Your task to perform on an android device: toggle translation in the chrome app Image 0: 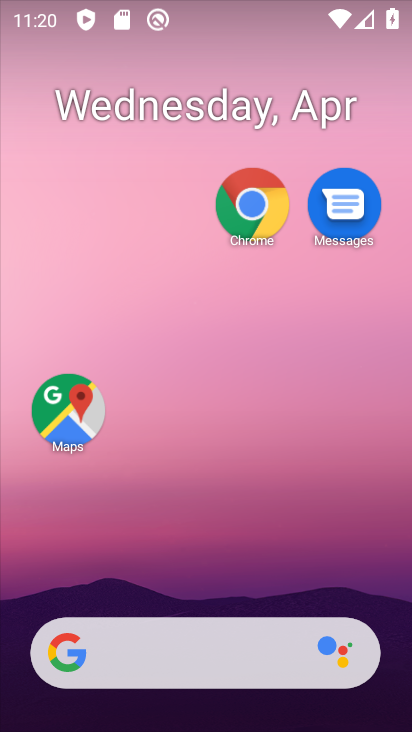
Step 0: drag from (192, 613) to (232, 11)
Your task to perform on an android device: toggle translation in the chrome app Image 1: 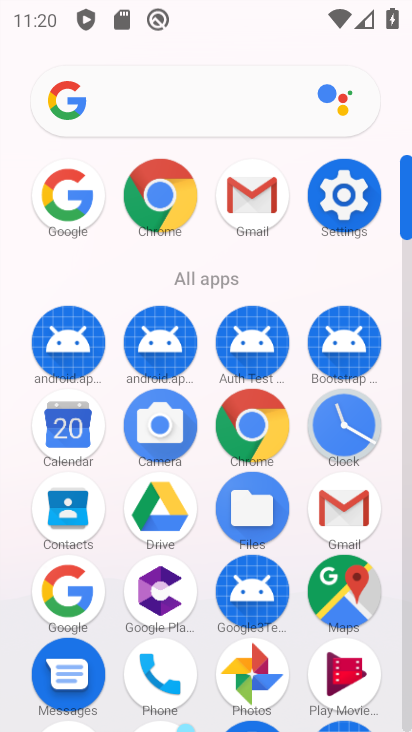
Step 1: click (157, 184)
Your task to perform on an android device: toggle translation in the chrome app Image 2: 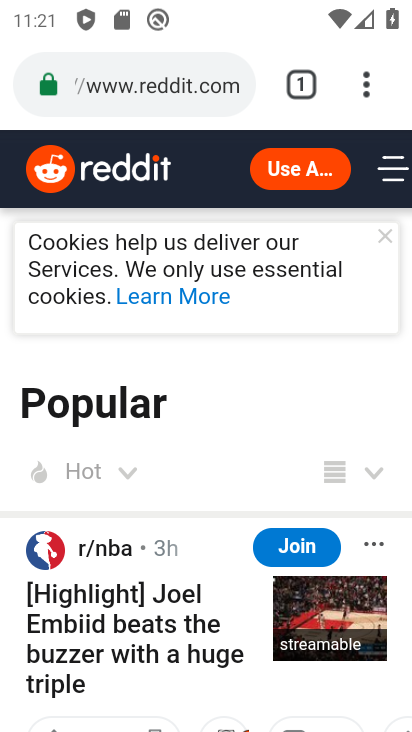
Step 2: click (359, 69)
Your task to perform on an android device: toggle translation in the chrome app Image 3: 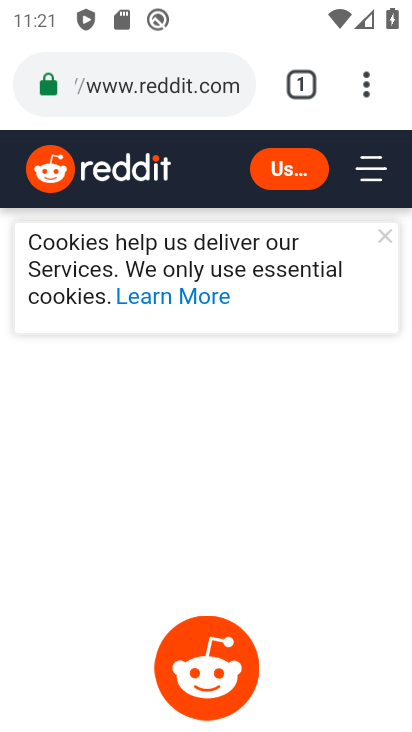
Step 3: drag from (371, 77) to (145, 591)
Your task to perform on an android device: toggle translation in the chrome app Image 4: 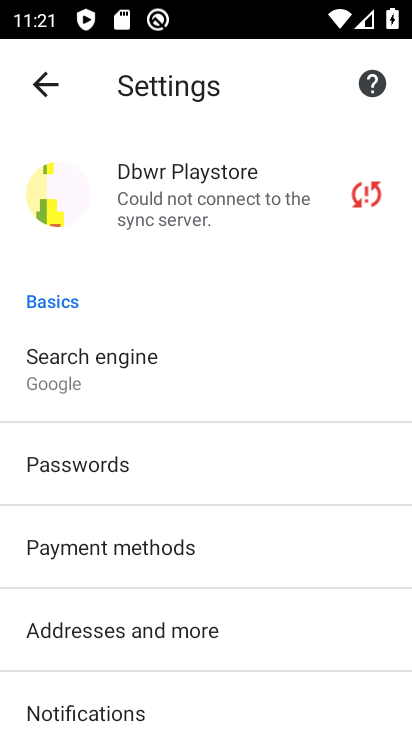
Step 4: drag from (154, 606) to (131, 140)
Your task to perform on an android device: toggle translation in the chrome app Image 5: 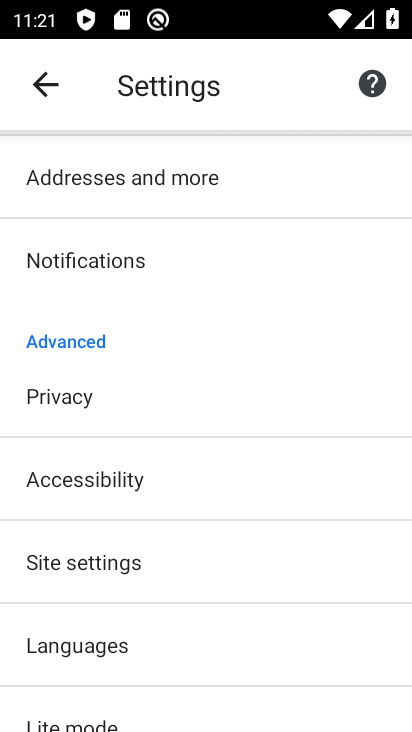
Step 5: click (123, 640)
Your task to perform on an android device: toggle translation in the chrome app Image 6: 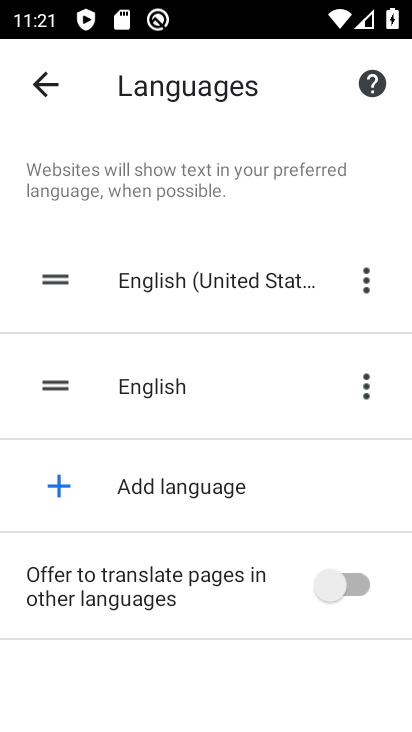
Step 6: click (351, 575)
Your task to perform on an android device: toggle translation in the chrome app Image 7: 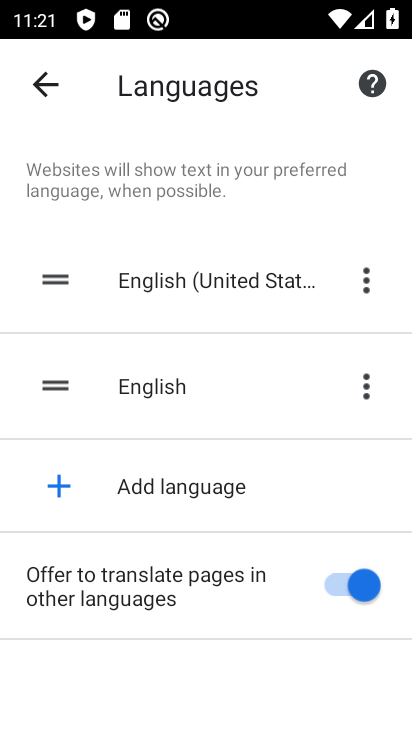
Step 7: click (347, 582)
Your task to perform on an android device: toggle translation in the chrome app Image 8: 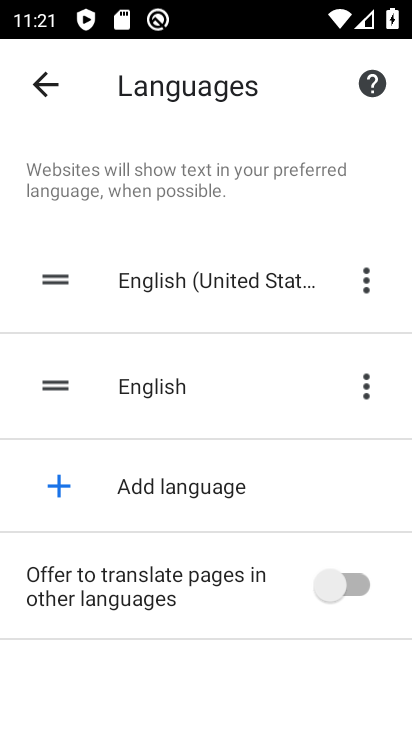
Step 8: click (347, 582)
Your task to perform on an android device: toggle translation in the chrome app Image 9: 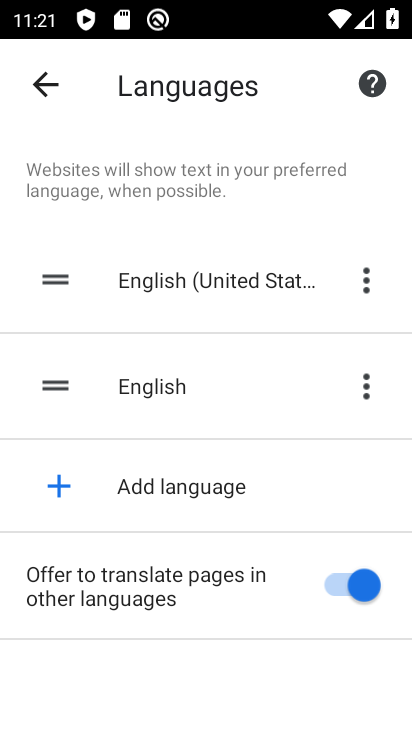
Step 9: click (347, 582)
Your task to perform on an android device: toggle translation in the chrome app Image 10: 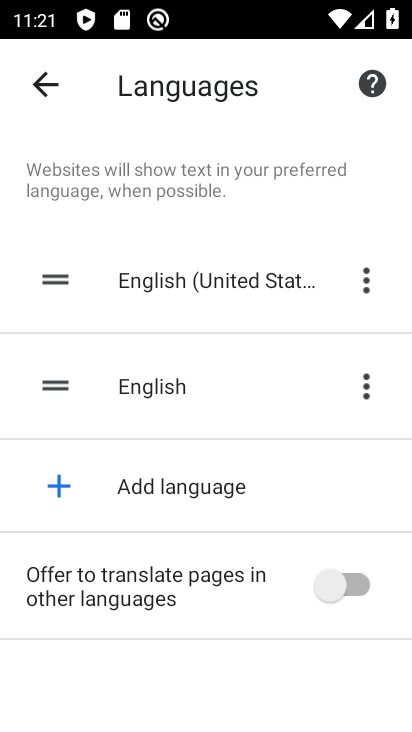
Step 10: task complete